Your task to perform on an android device: Open the stopwatch Image 0: 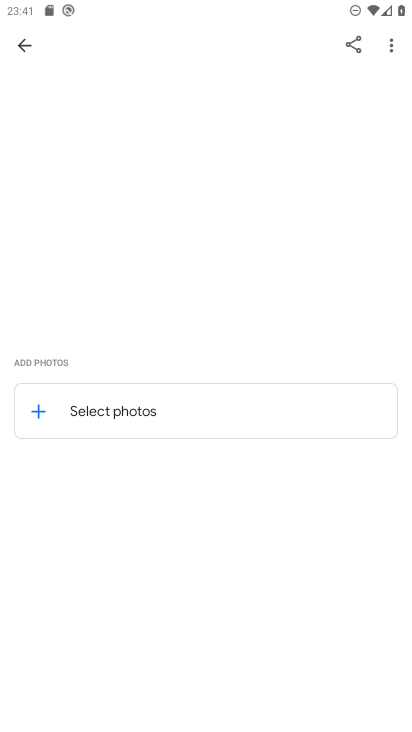
Step 0: press home button
Your task to perform on an android device: Open the stopwatch Image 1: 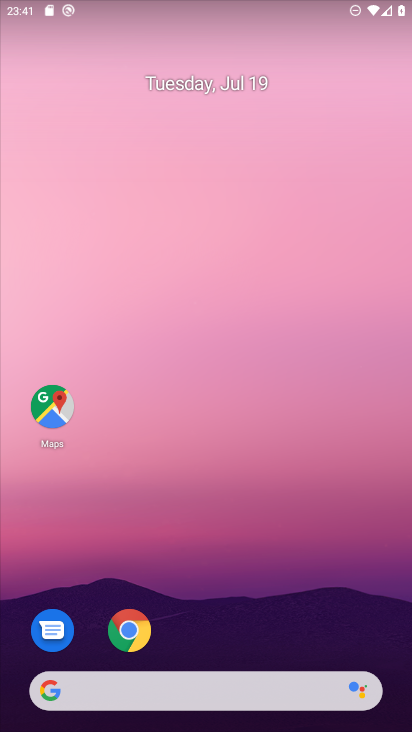
Step 1: drag from (214, 610) to (196, 193)
Your task to perform on an android device: Open the stopwatch Image 2: 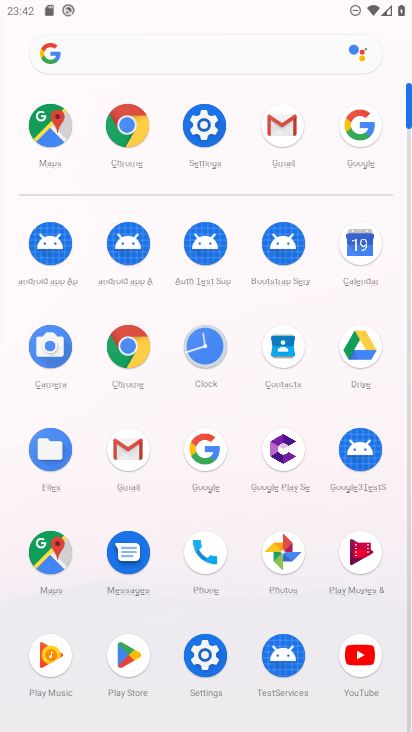
Step 2: click (222, 340)
Your task to perform on an android device: Open the stopwatch Image 3: 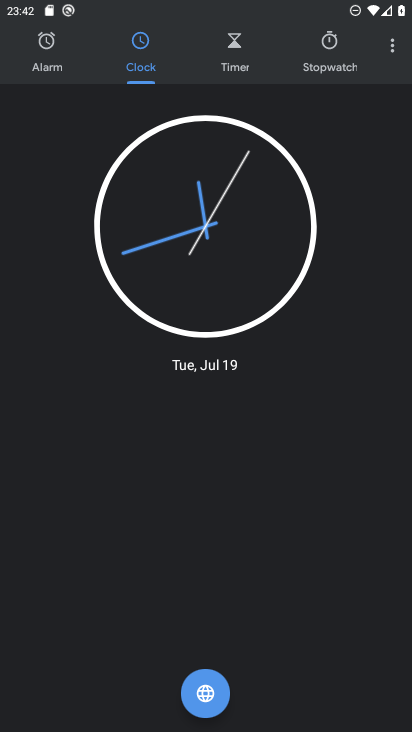
Step 3: click (328, 72)
Your task to perform on an android device: Open the stopwatch Image 4: 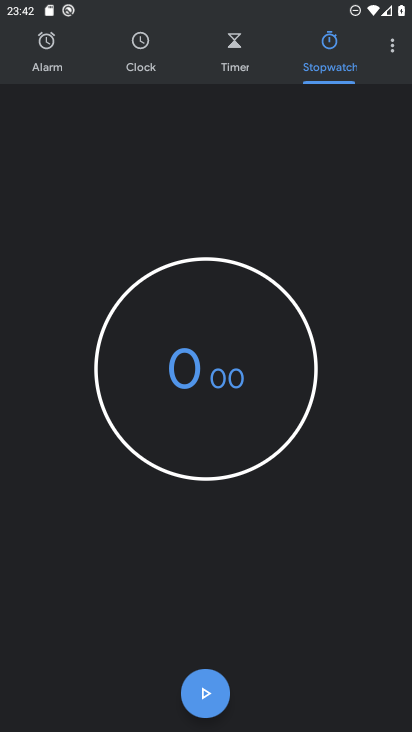
Step 4: task complete